Your task to perform on an android device: turn on translation in the chrome app Image 0: 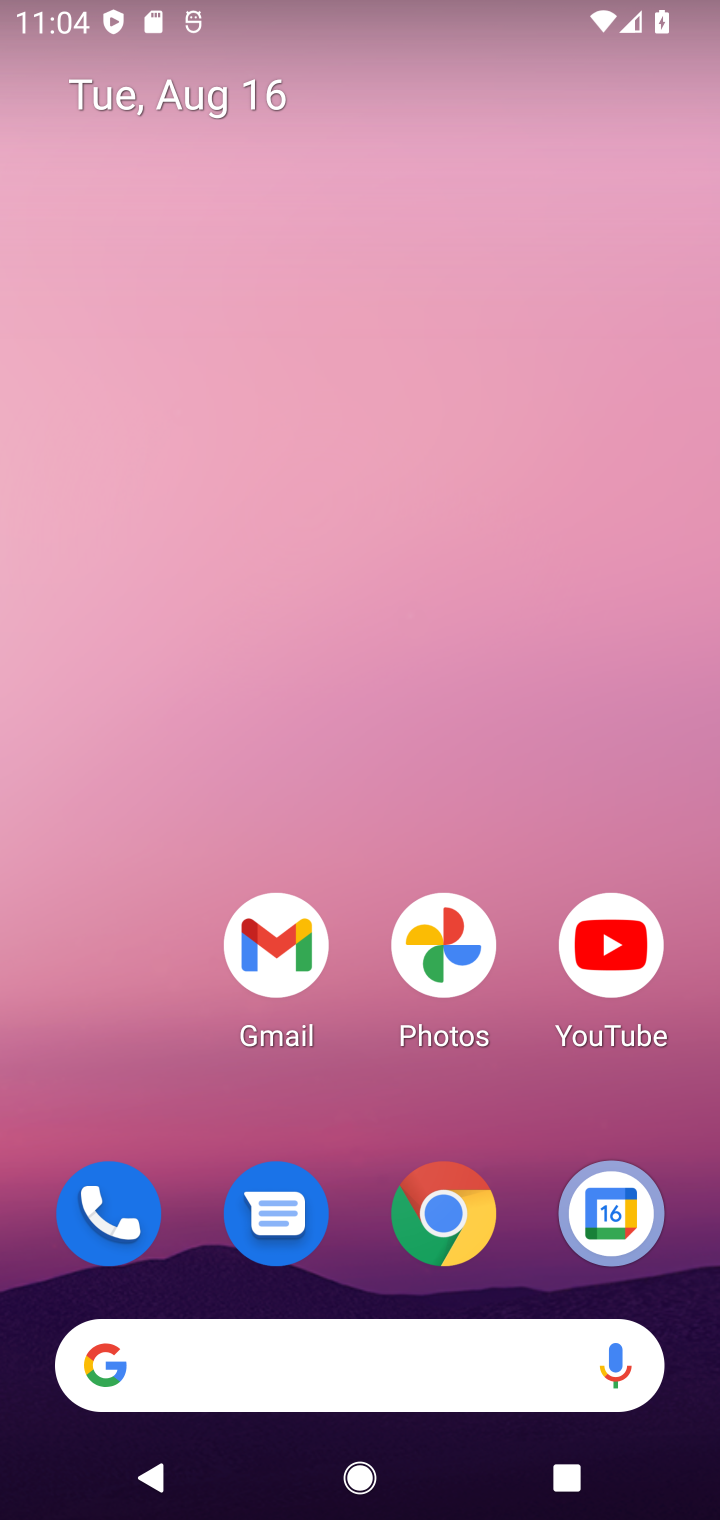
Step 0: drag from (339, 1080) to (366, 31)
Your task to perform on an android device: turn on translation in the chrome app Image 1: 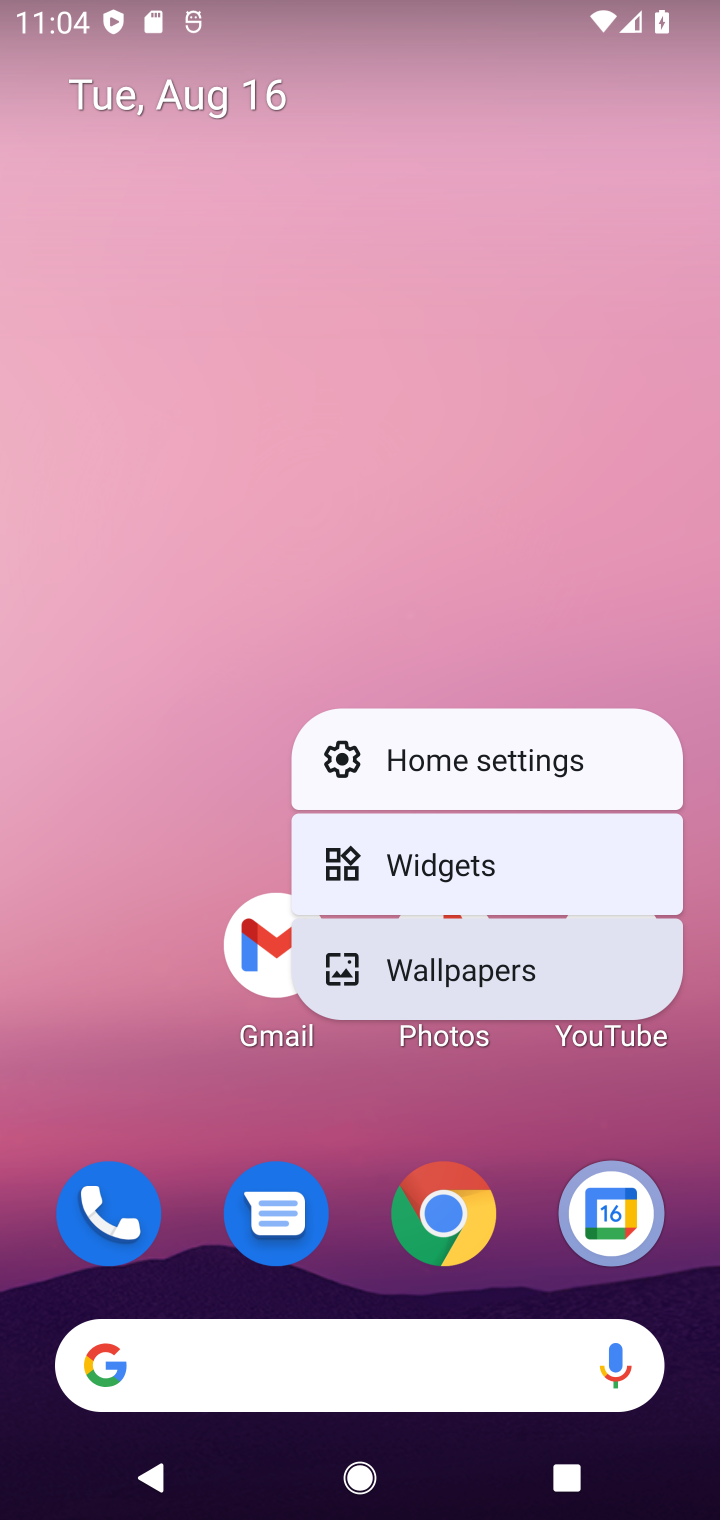
Step 1: click (150, 927)
Your task to perform on an android device: turn on translation in the chrome app Image 2: 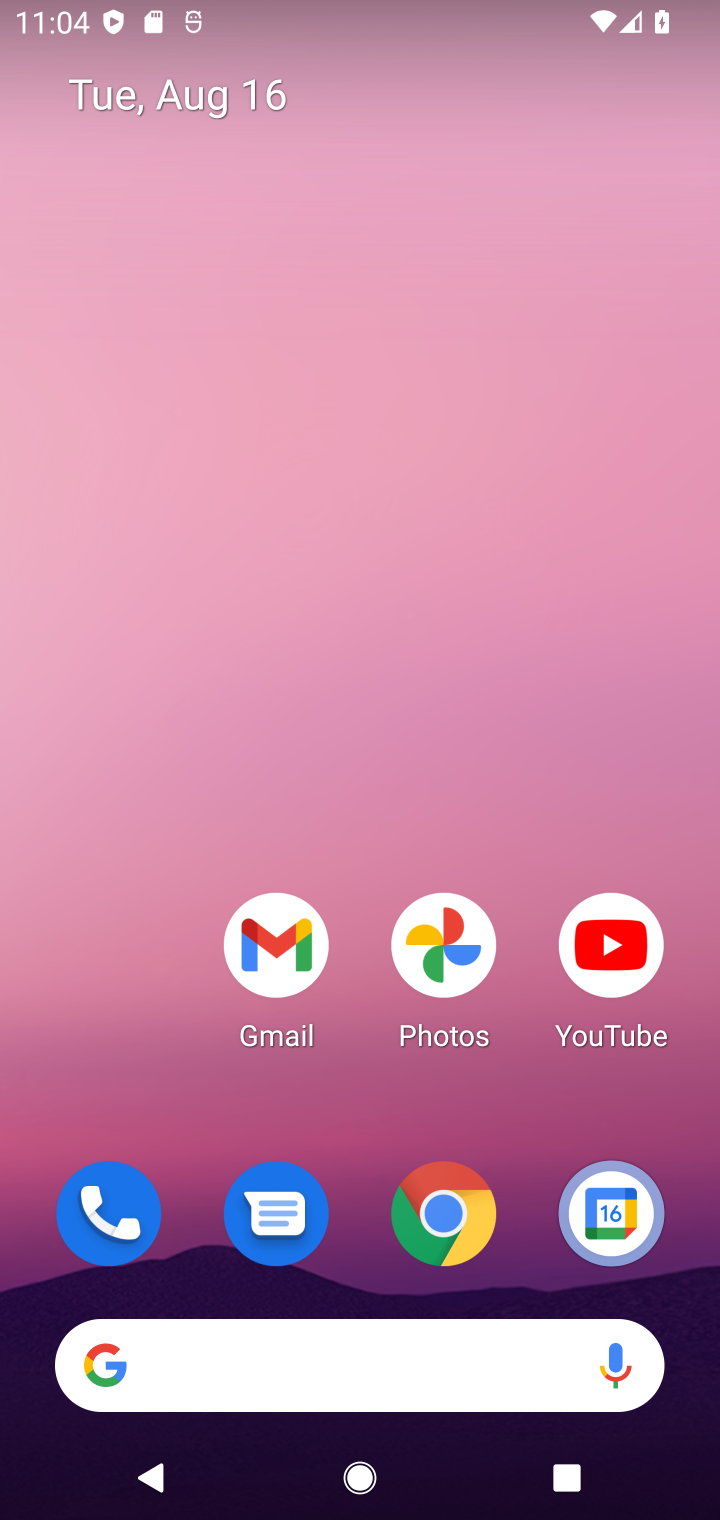
Step 2: drag from (369, 1079) to (355, 4)
Your task to perform on an android device: turn on translation in the chrome app Image 3: 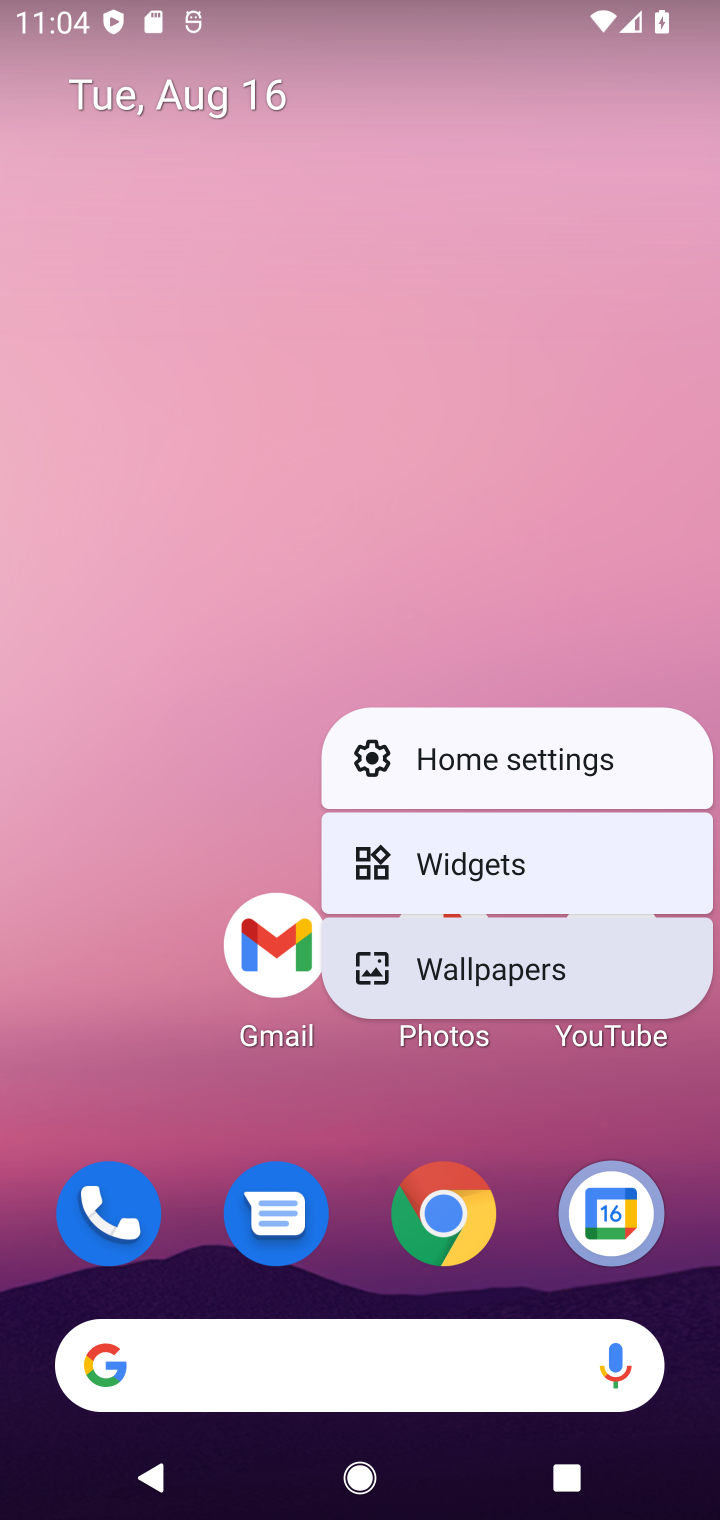
Step 3: click (96, 879)
Your task to perform on an android device: turn on translation in the chrome app Image 4: 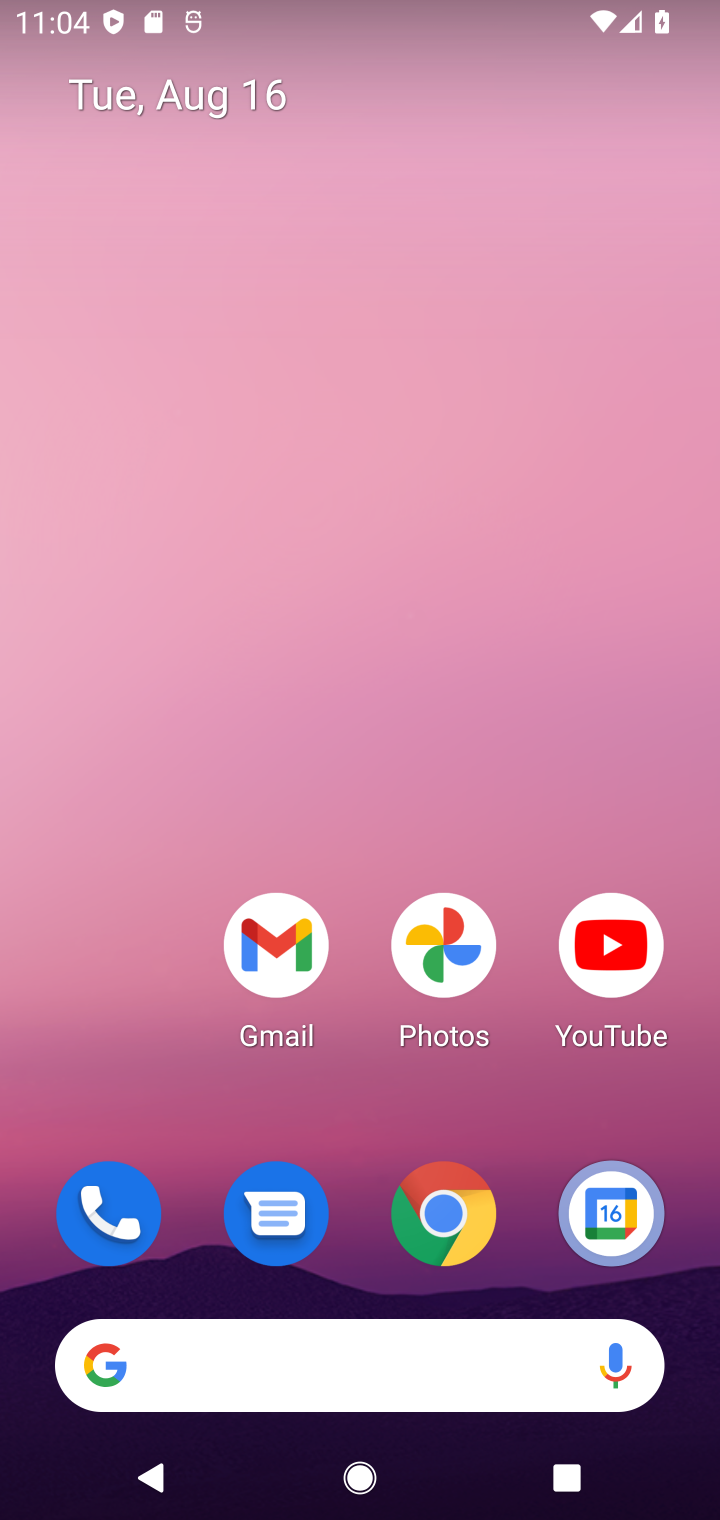
Step 4: drag from (363, 1263) to (362, 207)
Your task to perform on an android device: turn on translation in the chrome app Image 5: 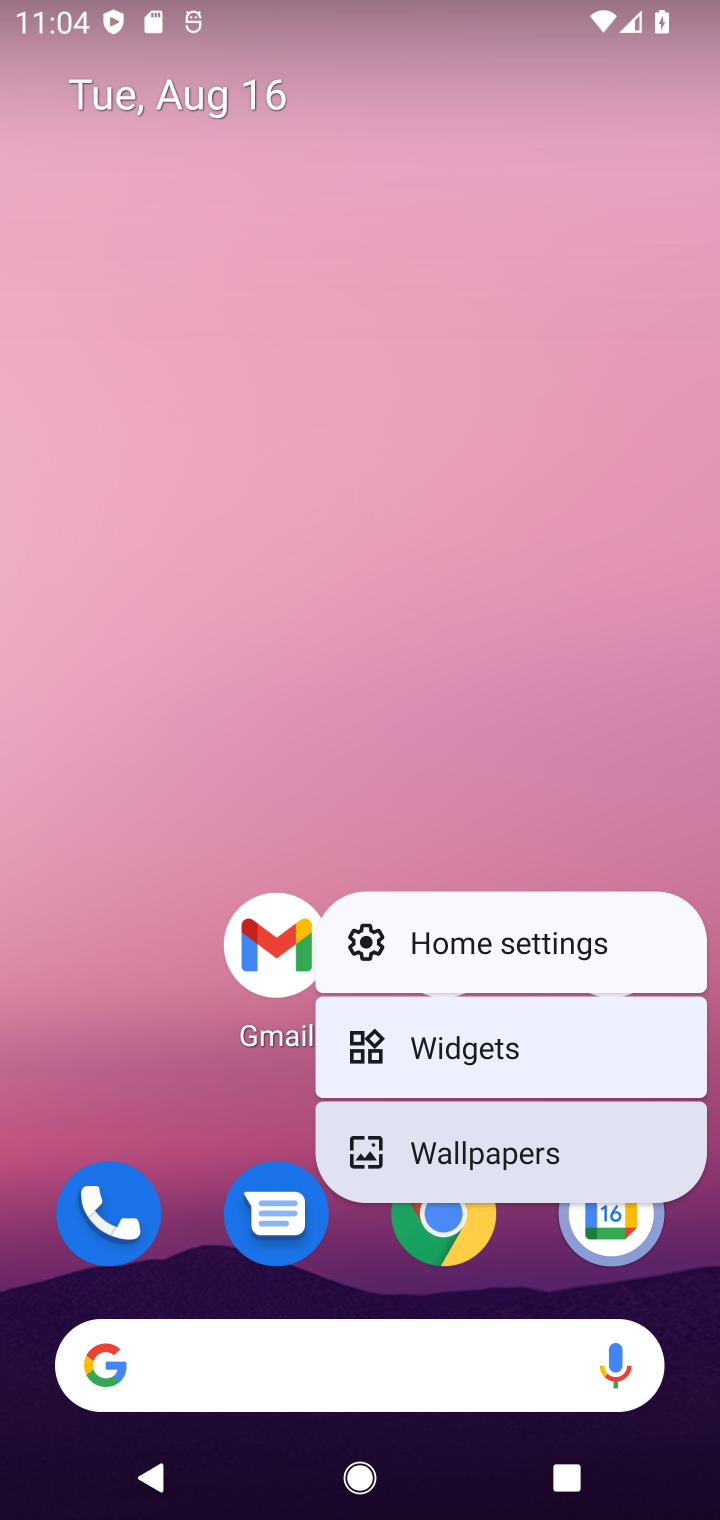
Step 5: click (450, 672)
Your task to perform on an android device: turn on translation in the chrome app Image 6: 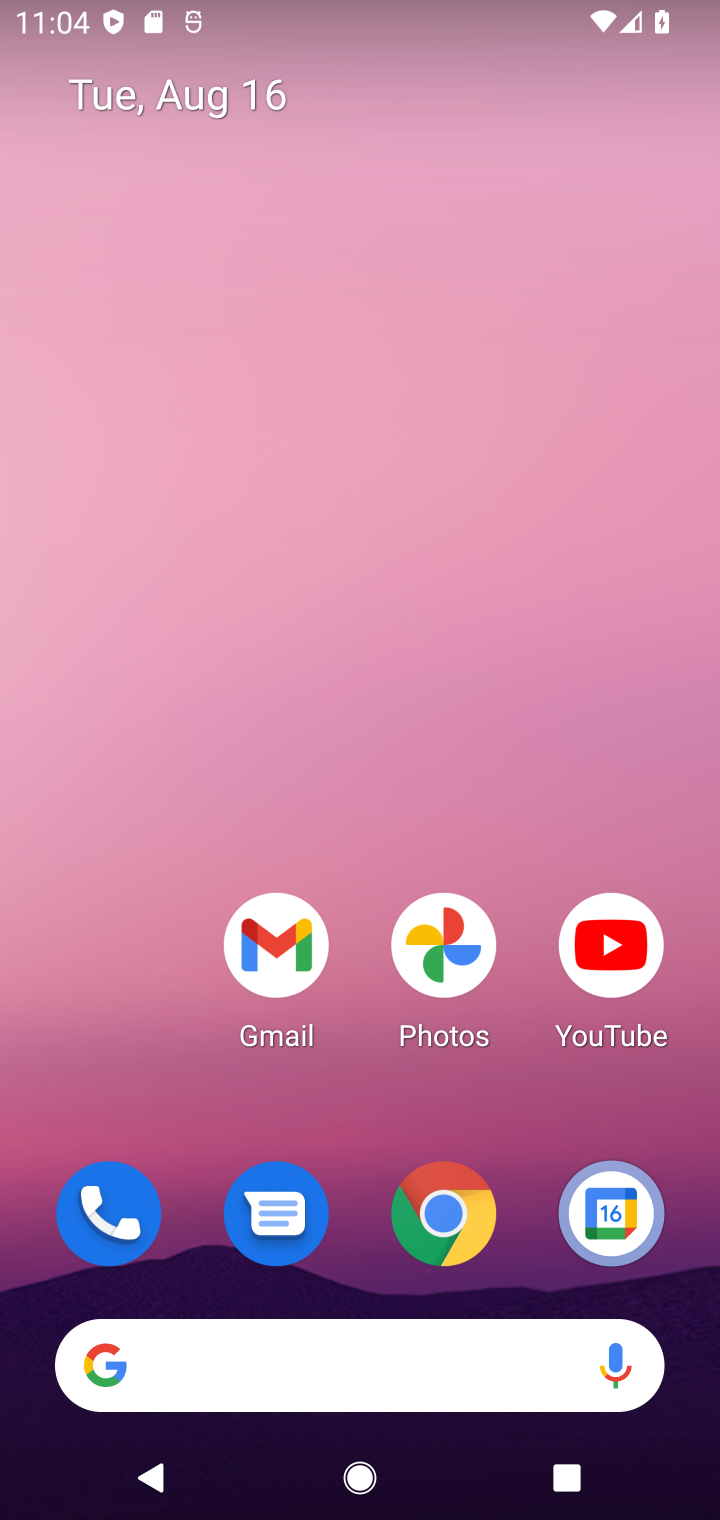
Step 6: drag from (413, 653) to (472, 99)
Your task to perform on an android device: turn on translation in the chrome app Image 7: 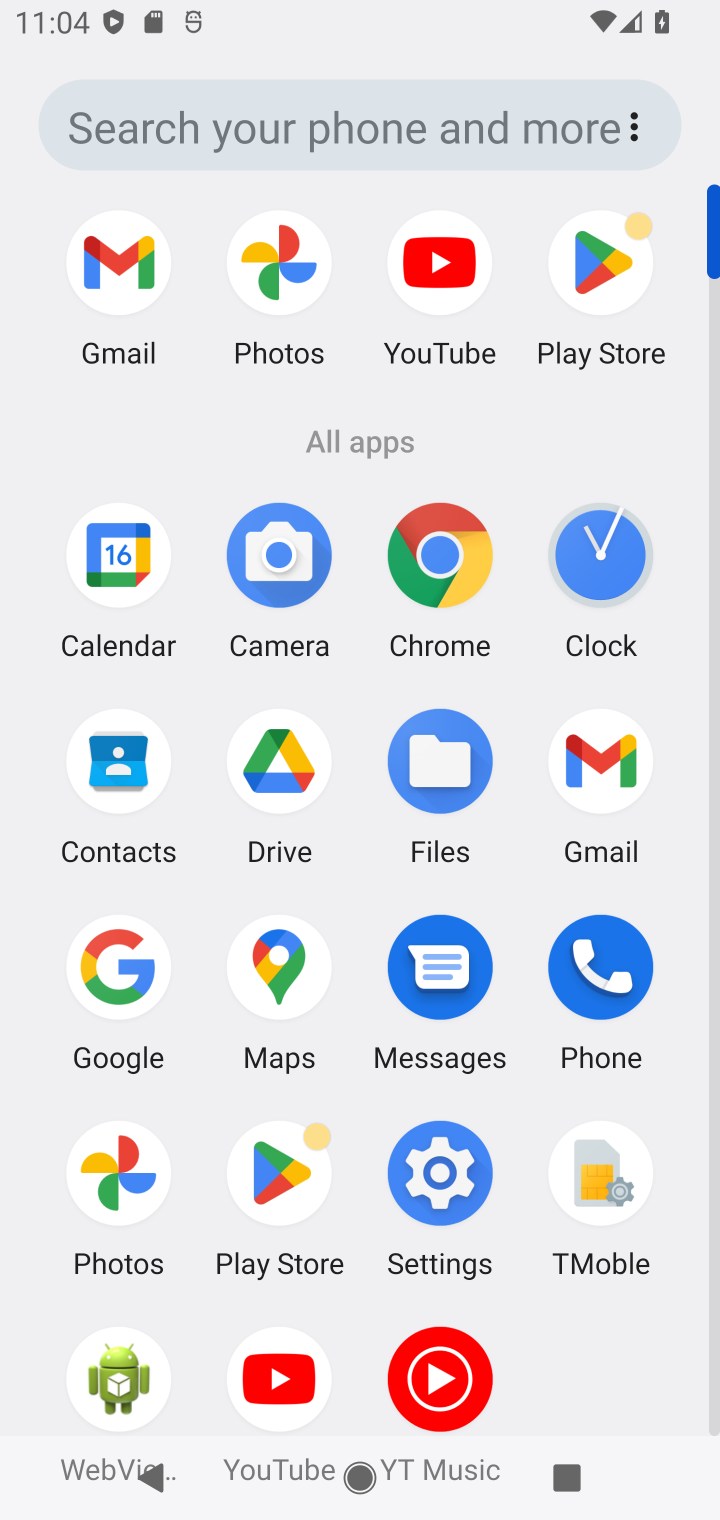
Step 7: click (435, 555)
Your task to perform on an android device: turn on translation in the chrome app Image 8: 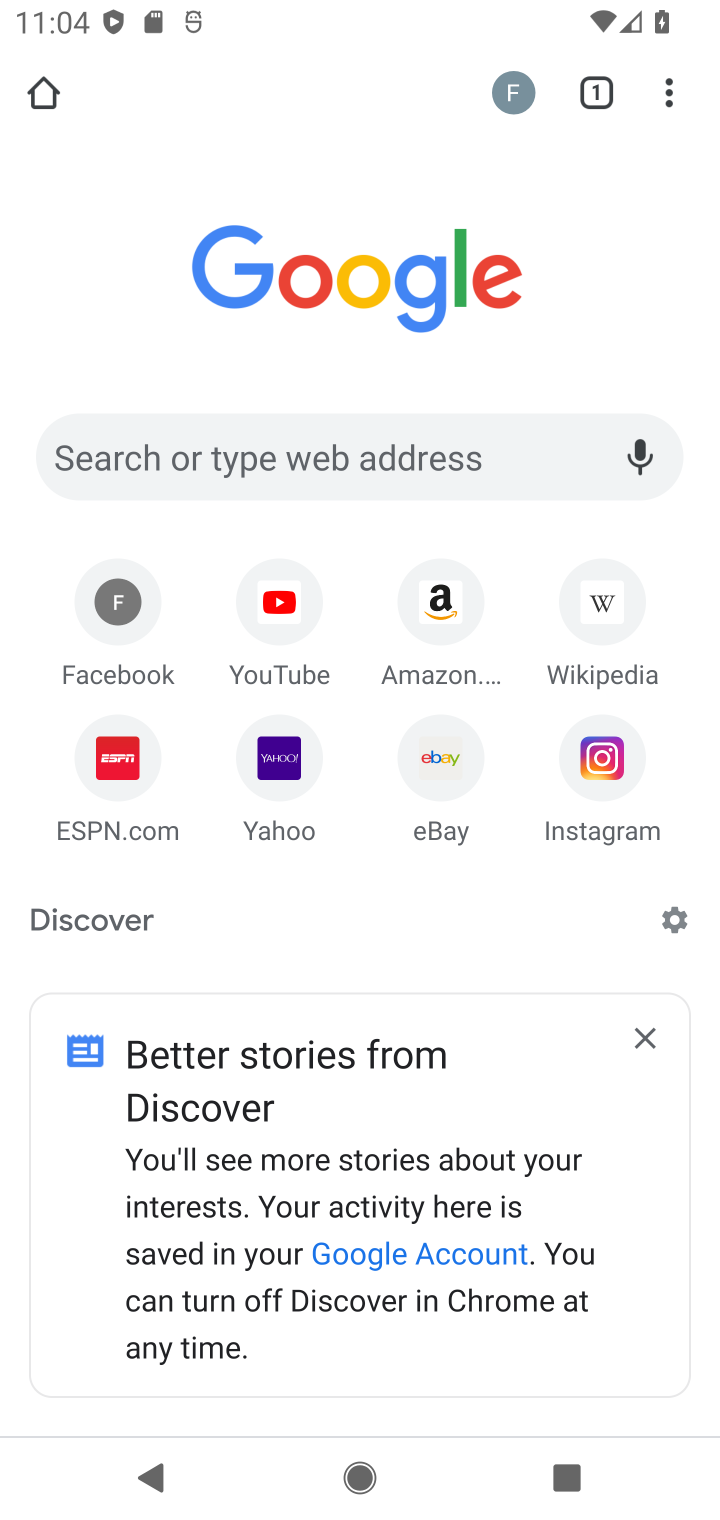
Step 8: drag from (670, 94) to (437, 861)
Your task to perform on an android device: turn on translation in the chrome app Image 9: 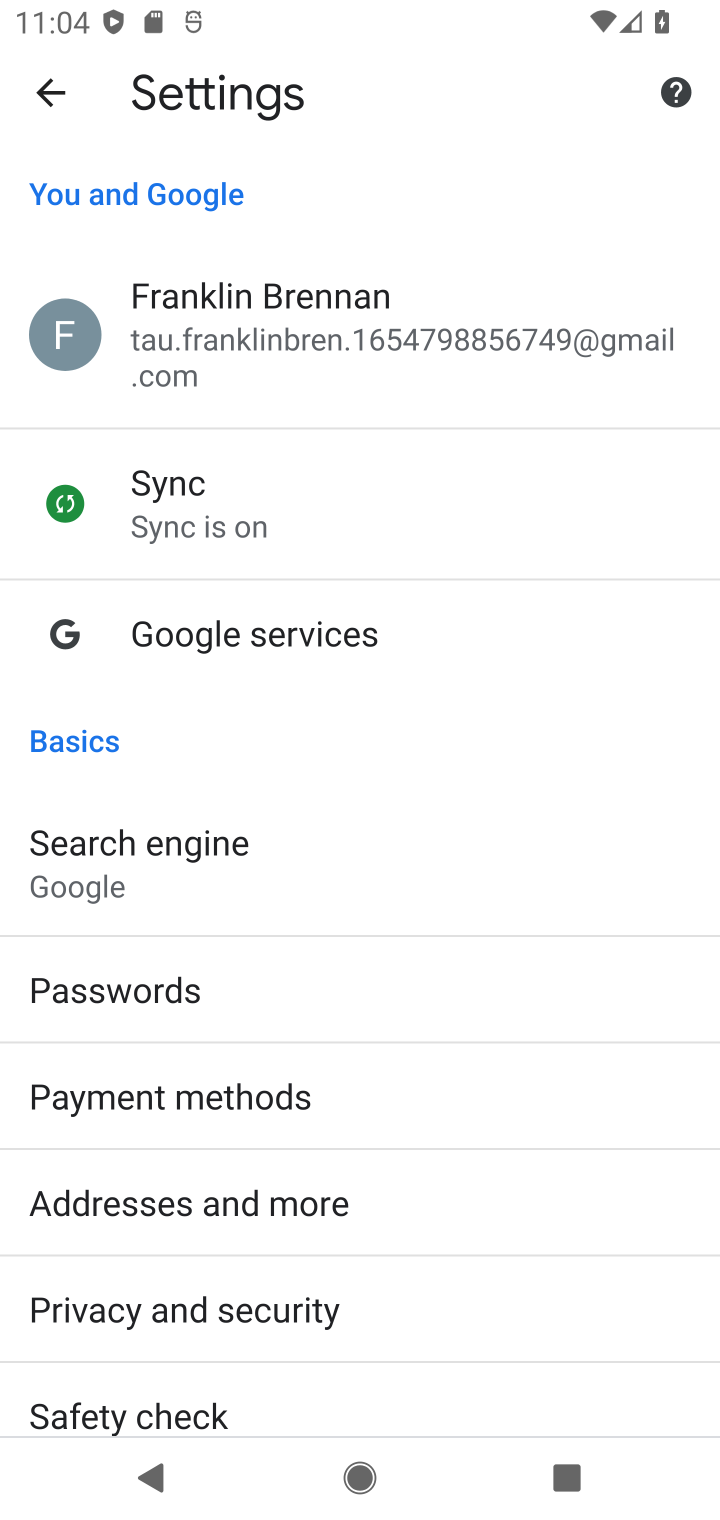
Step 9: drag from (447, 1218) to (437, 40)
Your task to perform on an android device: turn on translation in the chrome app Image 10: 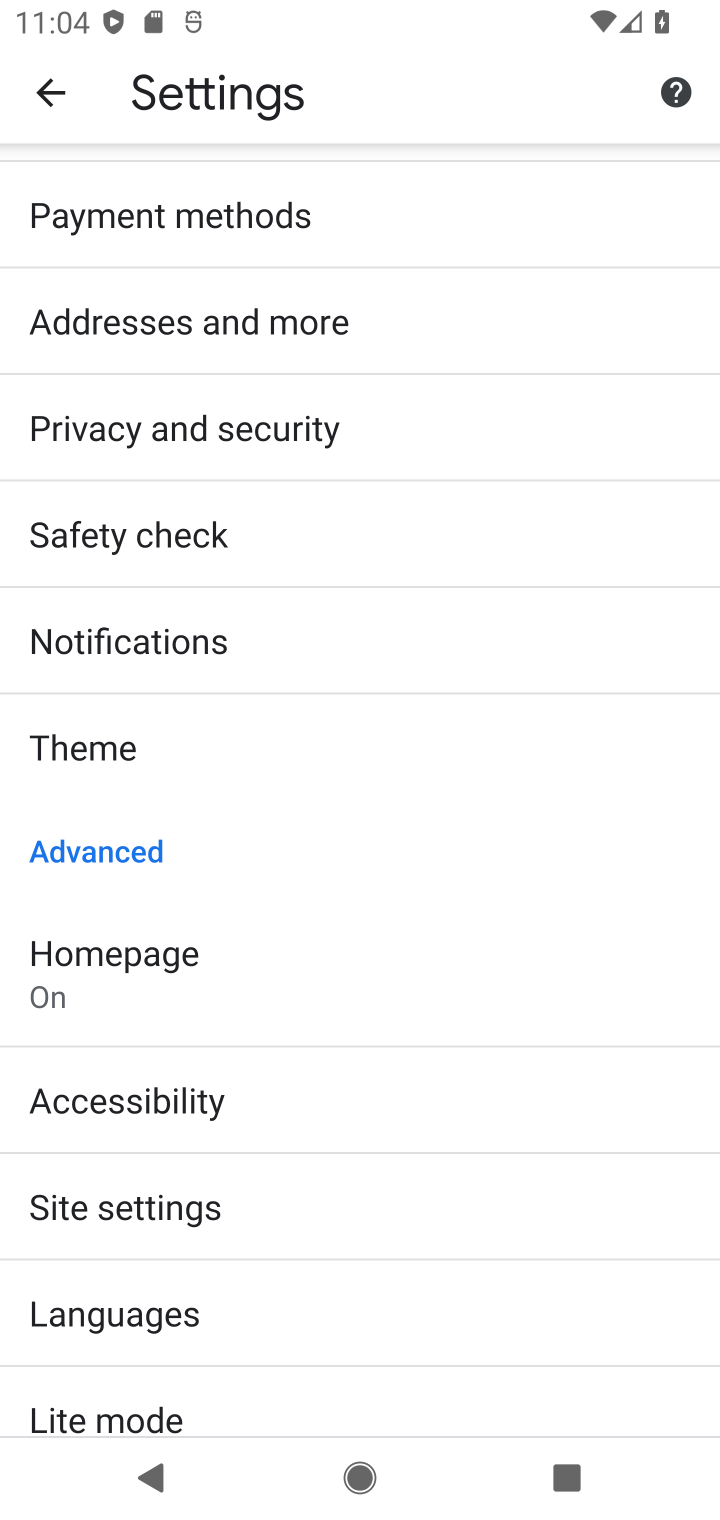
Step 10: drag from (296, 1161) to (283, 659)
Your task to perform on an android device: turn on translation in the chrome app Image 11: 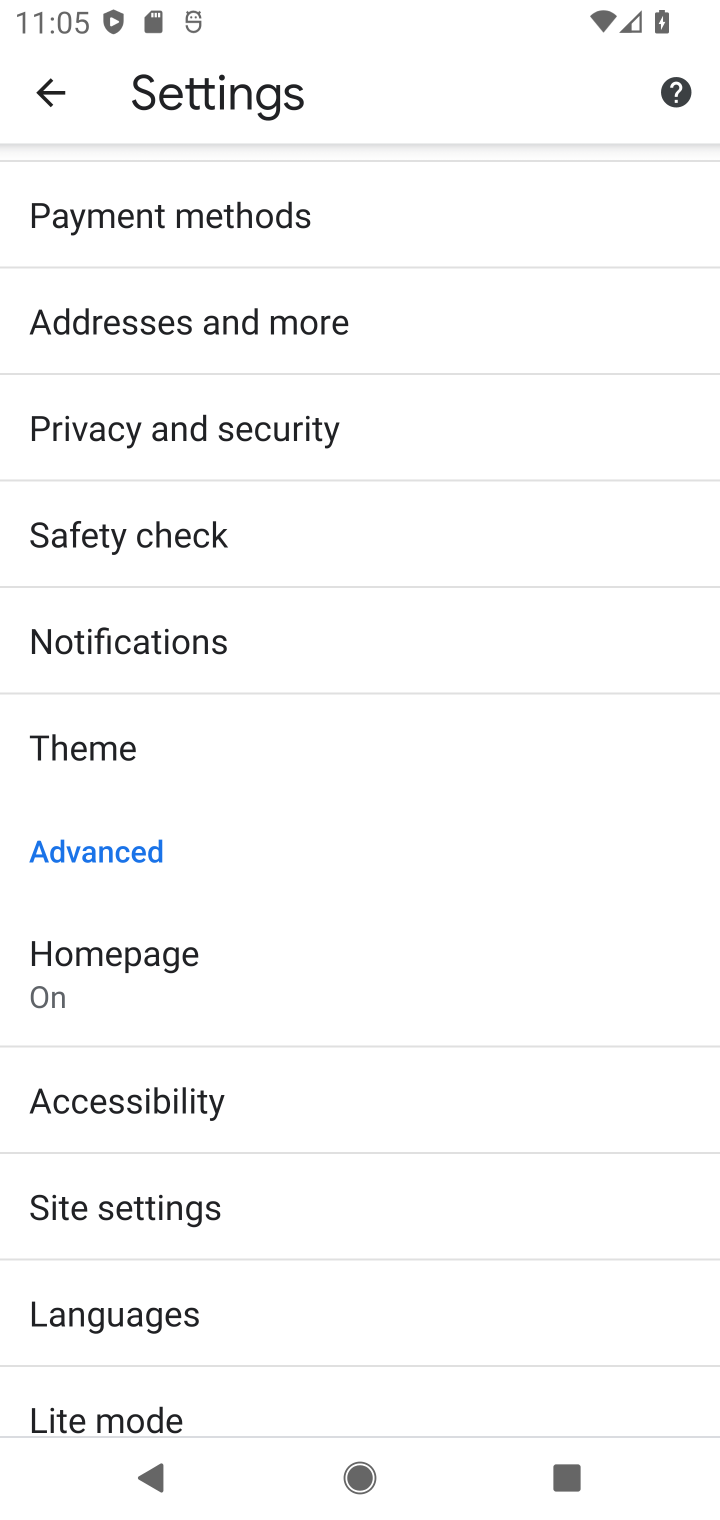
Step 11: click (151, 1305)
Your task to perform on an android device: turn on translation in the chrome app Image 12: 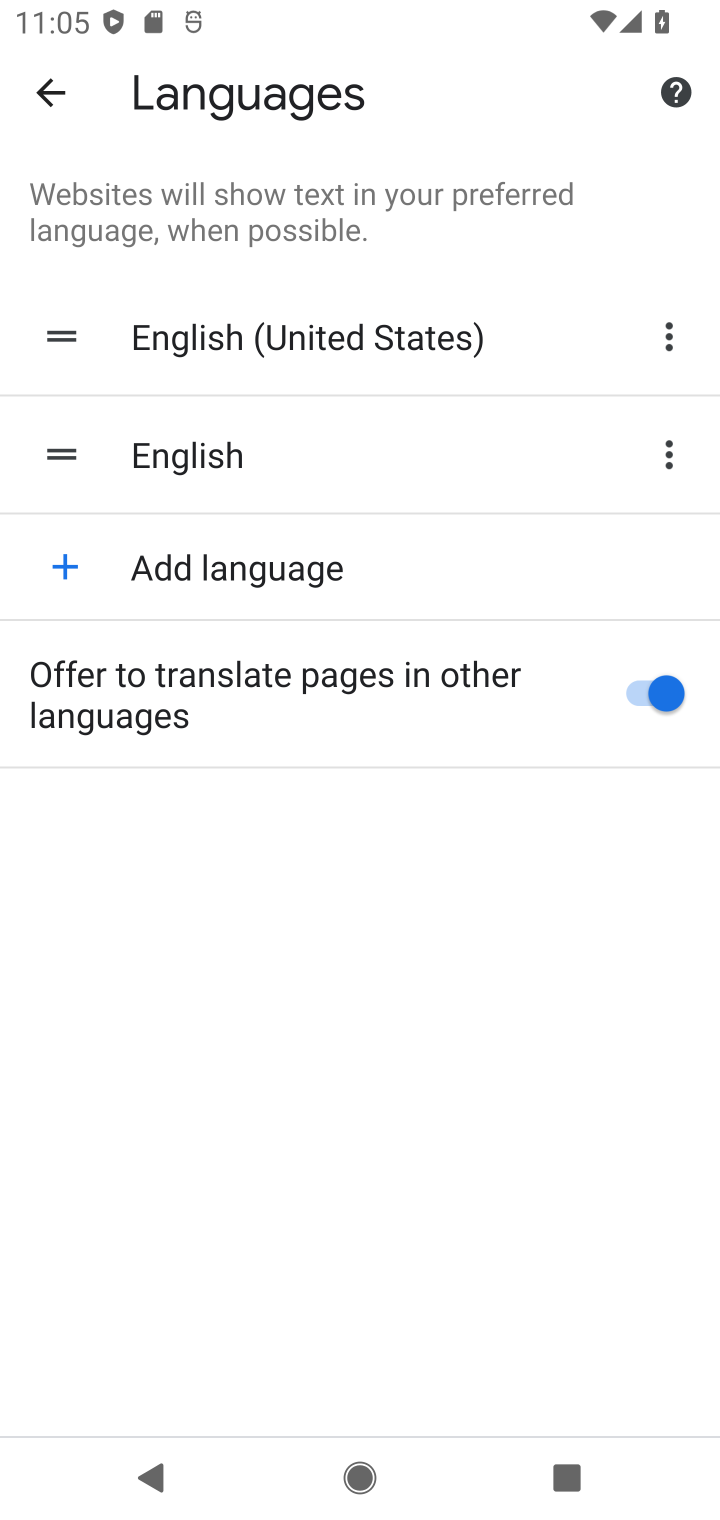
Step 12: task complete